Your task to perform on an android device: see tabs open on other devices in the chrome app Image 0: 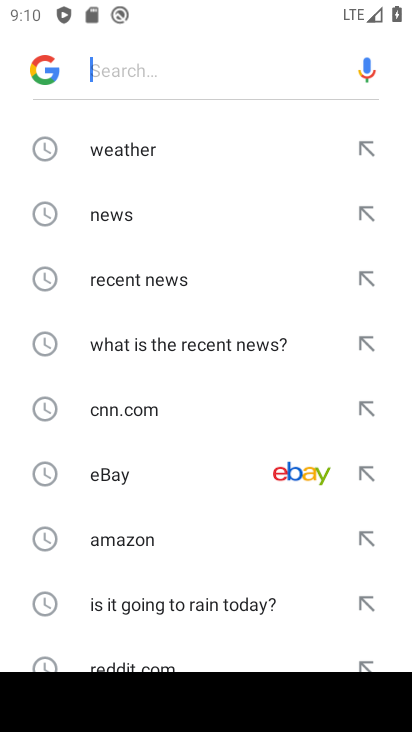
Step 0: press home button
Your task to perform on an android device: see tabs open on other devices in the chrome app Image 1: 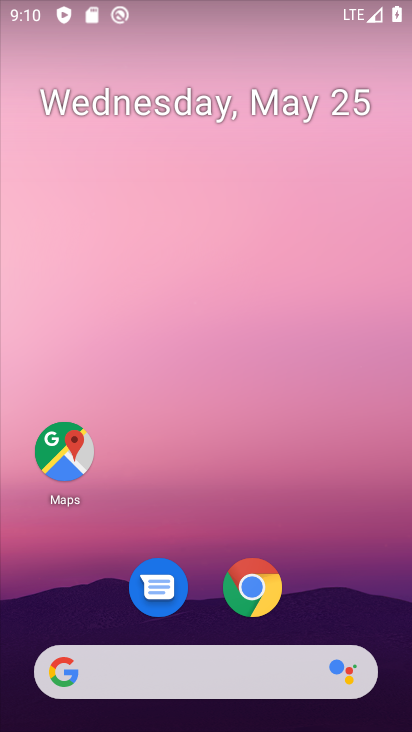
Step 1: drag from (199, 620) to (224, 266)
Your task to perform on an android device: see tabs open on other devices in the chrome app Image 2: 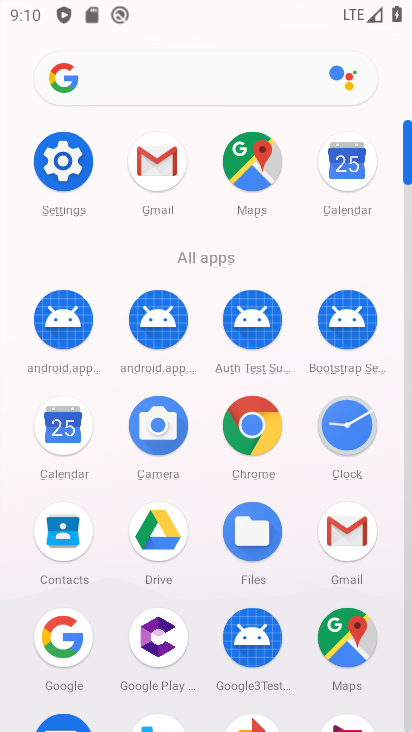
Step 2: click (239, 430)
Your task to perform on an android device: see tabs open on other devices in the chrome app Image 3: 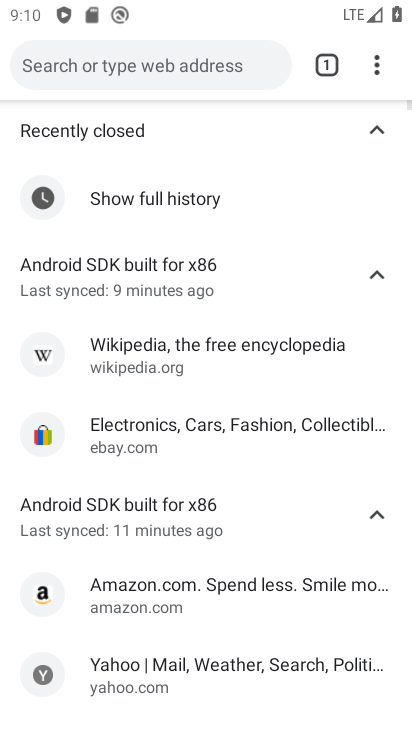
Step 3: task complete